Your task to perform on an android device: turn off wifi Image 0: 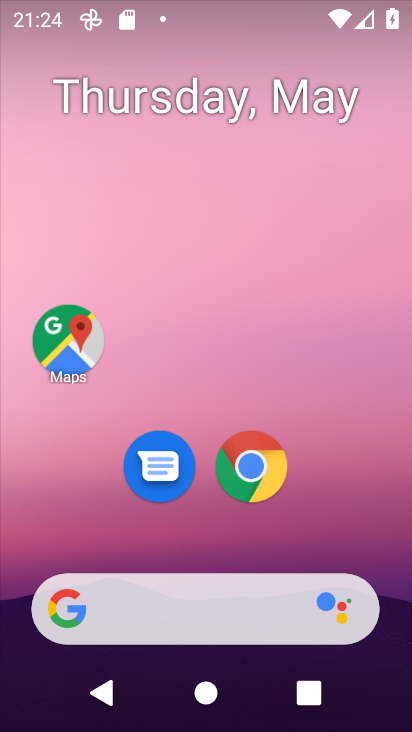
Step 0: drag from (351, 516) to (354, 0)
Your task to perform on an android device: turn off wifi Image 1: 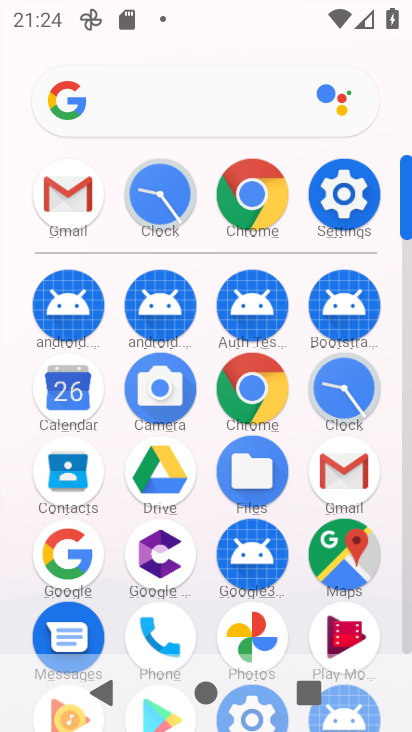
Step 1: click (347, 179)
Your task to perform on an android device: turn off wifi Image 2: 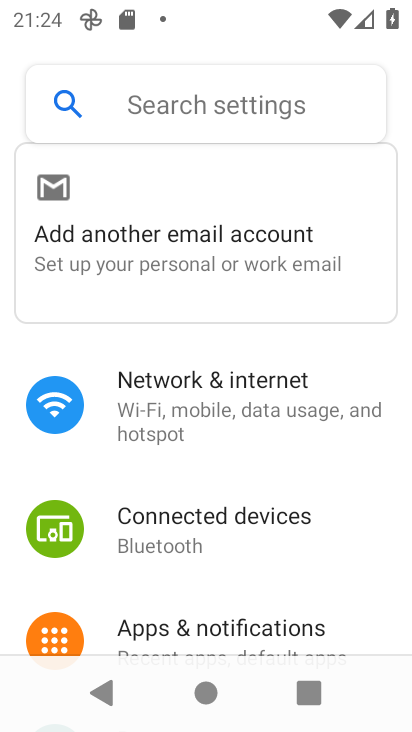
Step 2: click (165, 225)
Your task to perform on an android device: turn off wifi Image 3: 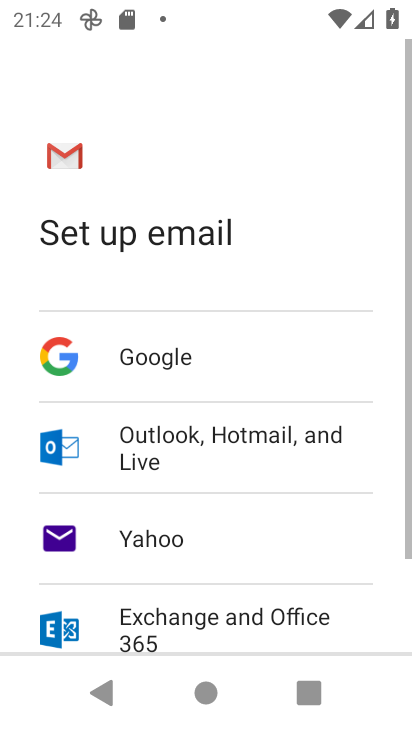
Step 3: press back button
Your task to perform on an android device: turn off wifi Image 4: 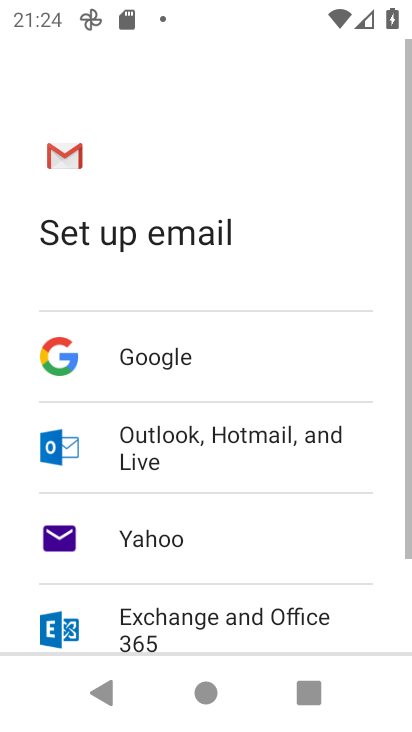
Step 4: press back button
Your task to perform on an android device: turn off wifi Image 5: 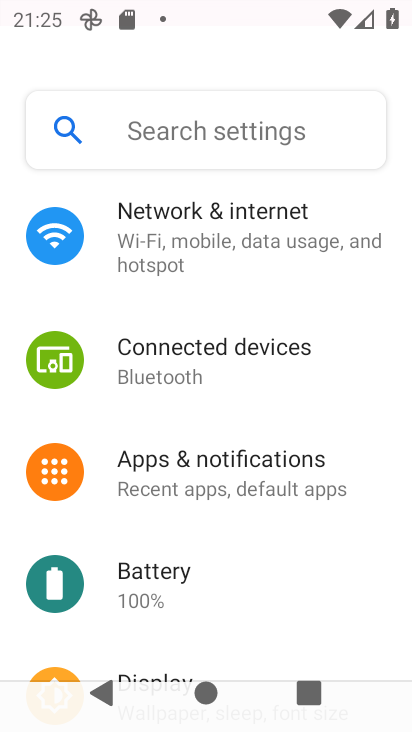
Step 5: press back button
Your task to perform on an android device: turn off wifi Image 6: 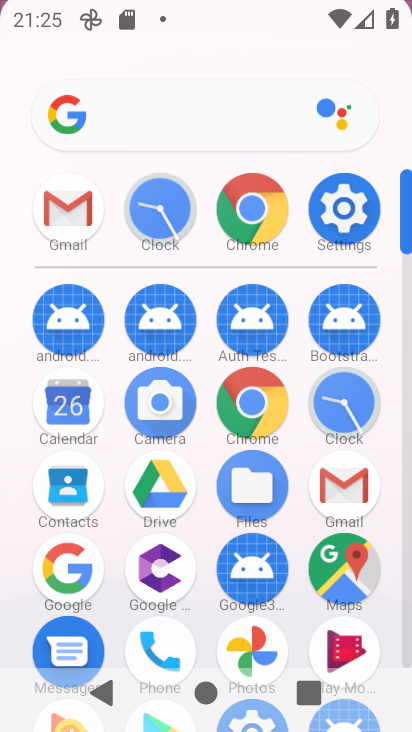
Step 6: press back button
Your task to perform on an android device: turn off wifi Image 7: 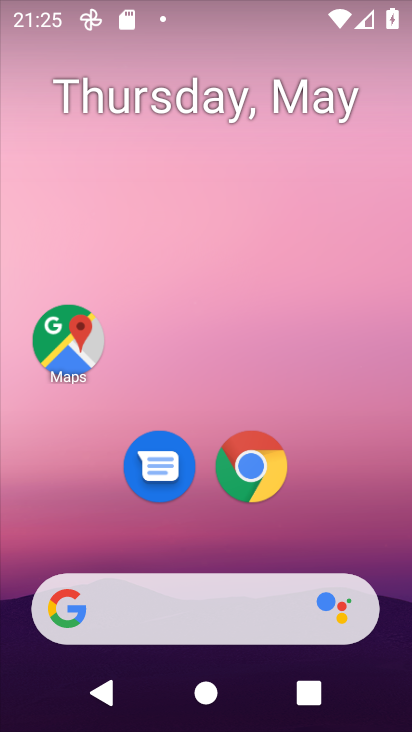
Step 7: drag from (347, 536) to (313, 32)
Your task to perform on an android device: turn off wifi Image 8: 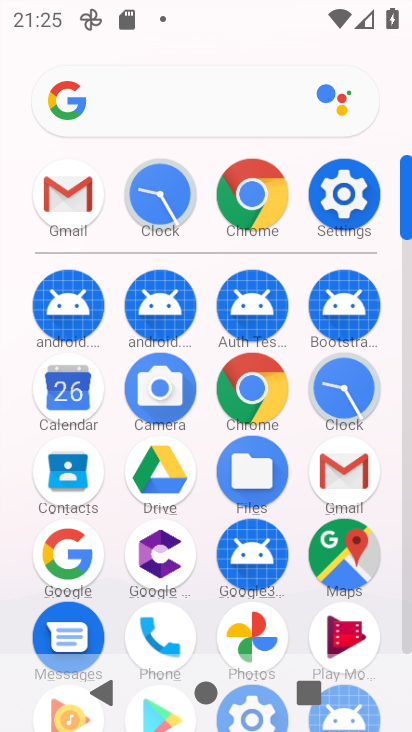
Step 8: click (357, 177)
Your task to perform on an android device: turn off wifi Image 9: 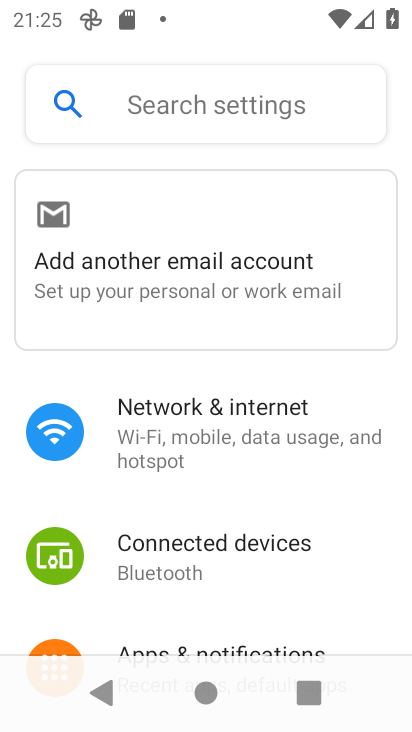
Step 9: click (258, 395)
Your task to perform on an android device: turn off wifi Image 10: 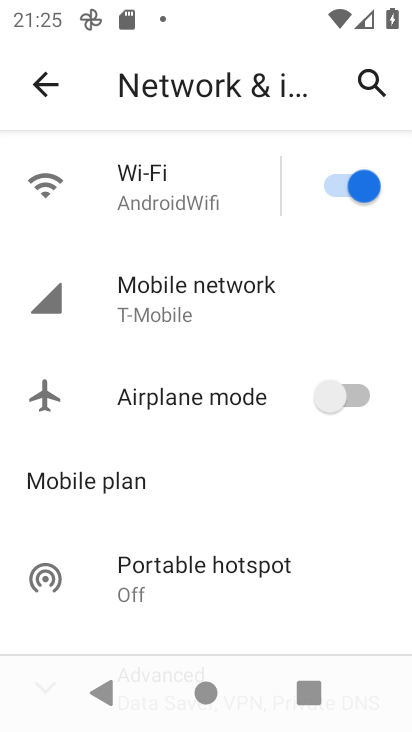
Step 10: click (329, 208)
Your task to perform on an android device: turn off wifi Image 11: 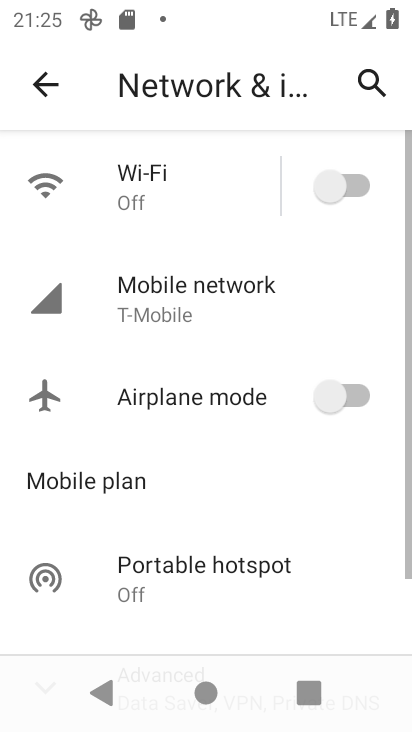
Step 11: task complete